Your task to perform on an android device: open chrome privacy settings Image 0: 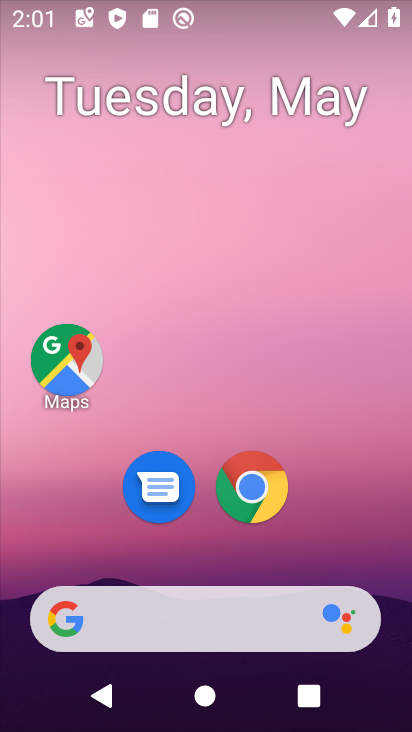
Step 0: click (259, 485)
Your task to perform on an android device: open chrome privacy settings Image 1: 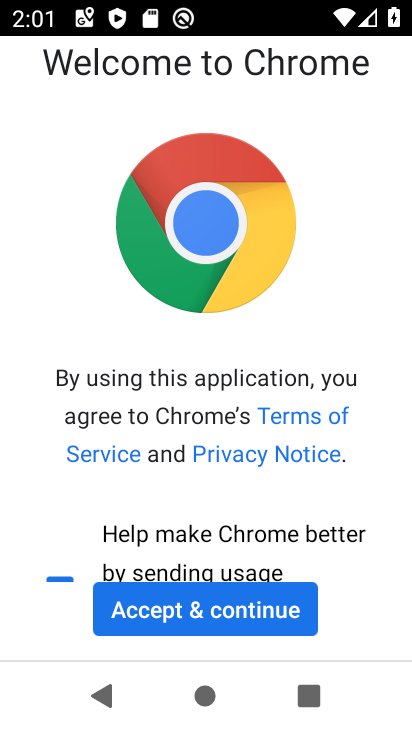
Step 1: click (205, 608)
Your task to perform on an android device: open chrome privacy settings Image 2: 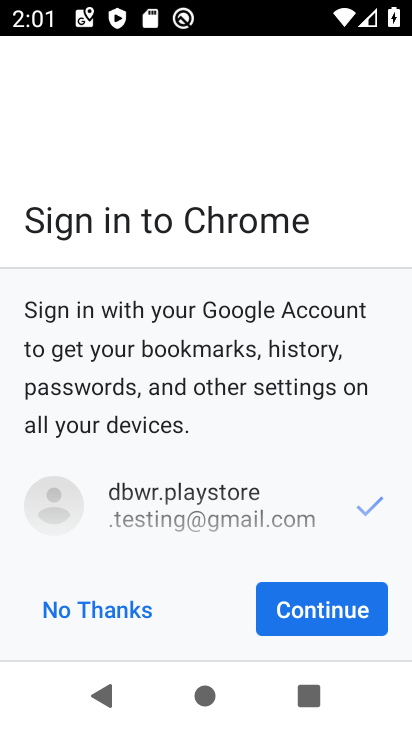
Step 2: click (290, 596)
Your task to perform on an android device: open chrome privacy settings Image 3: 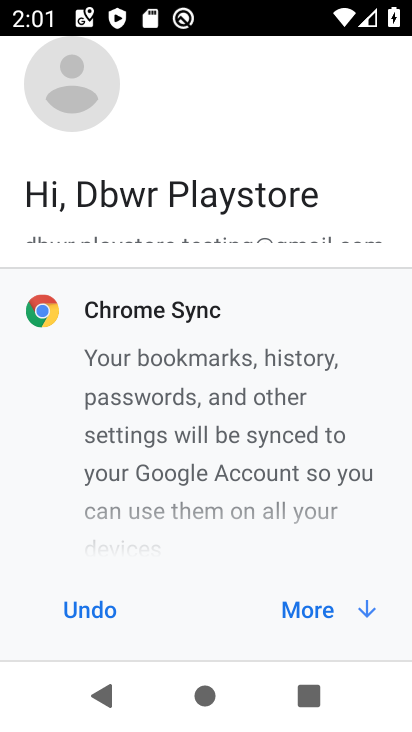
Step 3: click (290, 596)
Your task to perform on an android device: open chrome privacy settings Image 4: 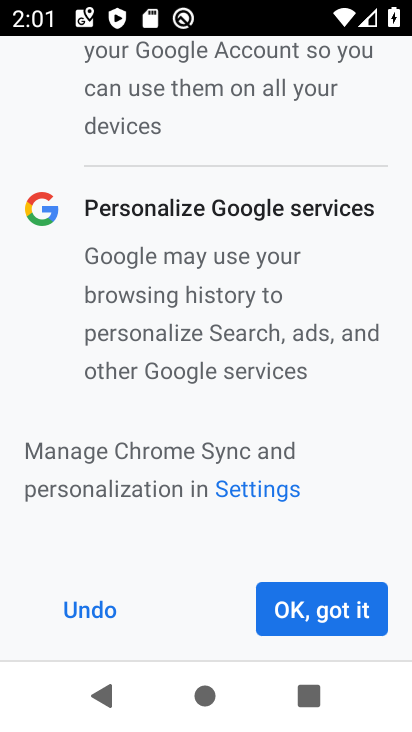
Step 4: click (290, 596)
Your task to perform on an android device: open chrome privacy settings Image 5: 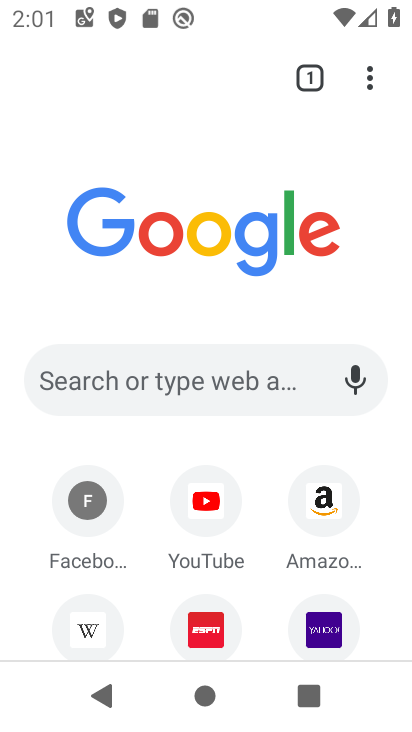
Step 5: click (367, 86)
Your task to perform on an android device: open chrome privacy settings Image 6: 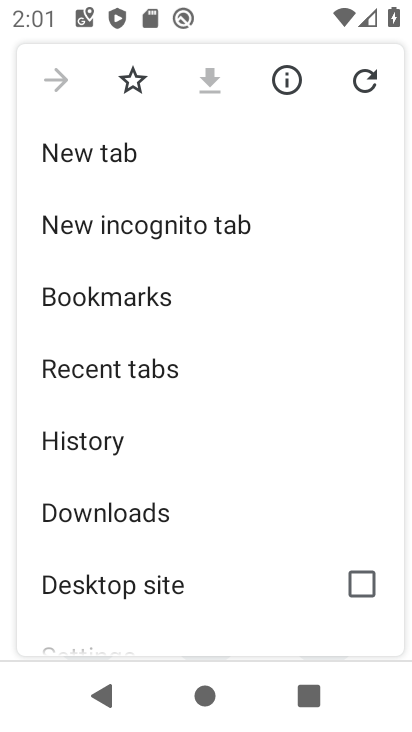
Step 6: drag from (235, 520) to (330, 132)
Your task to perform on an android device: open chrome privacy settings Image 7: 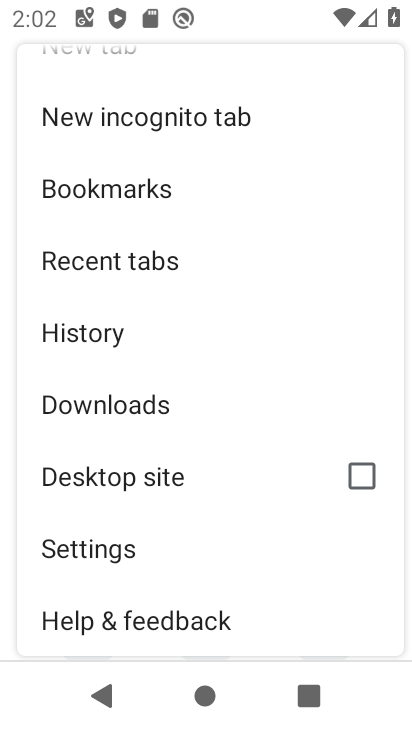
Step 7: click (130, 557)
Your task to perform on an android device: open chrome privacy settings Image 8: 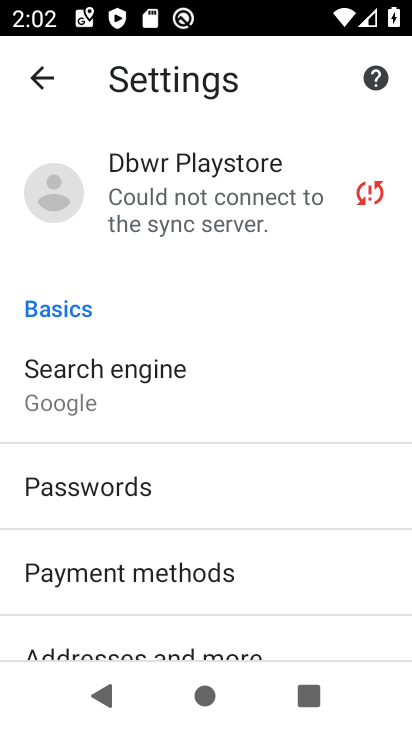
Step 8: drag from (151, 581) to (219, 197)
Your task to perform on an android device: open chrome privacy settings Image 9: 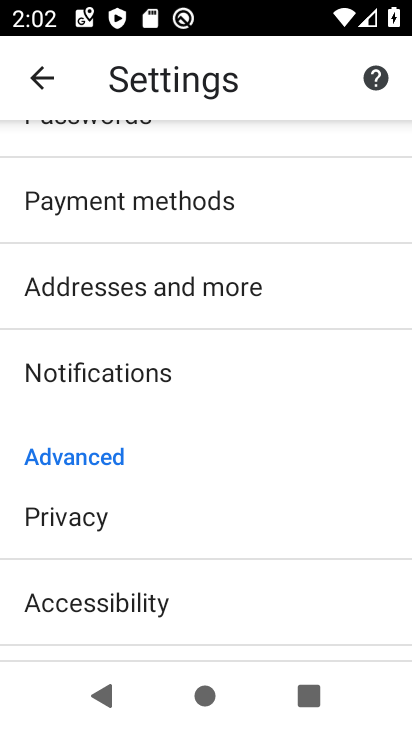
Step 9: click (75, 508)
Your task to perform on an android device: open chrome privacy settings Image 10: 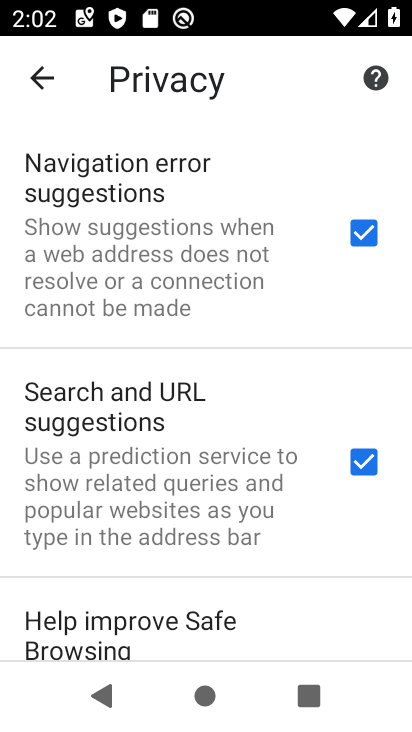
Step 10: task complete